Your task to perform on an android device: Set the phone to "Do not disturb". Image 0: 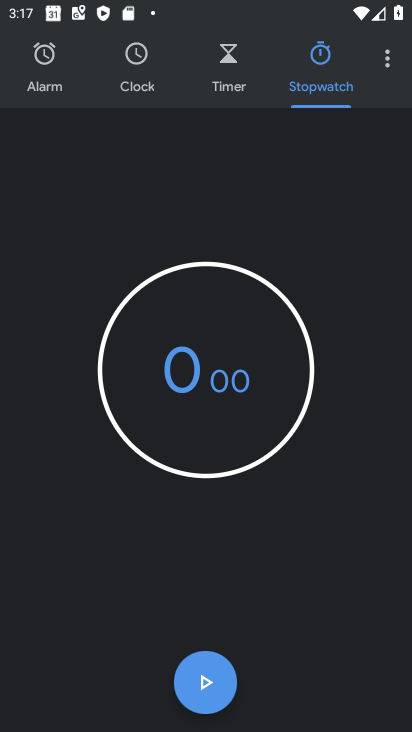
Step 0: press back button
Your task to perform on an android device: Set the phone to "Do not disturb". Image 1: 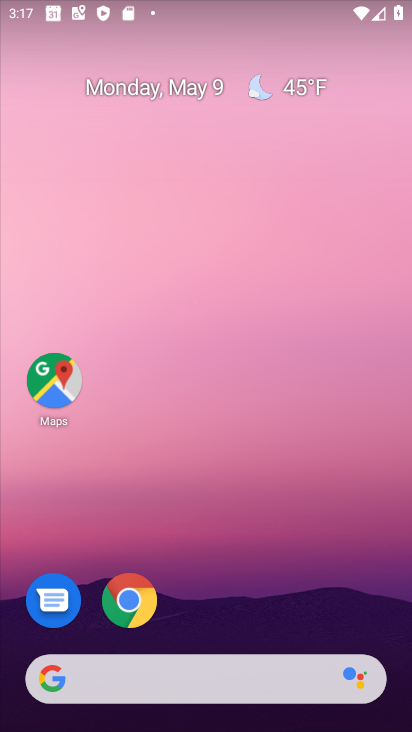
Step 1: drag from (290, 441) to (230, 40)
Your task to perform on an android device: Set the phone to "Do not disturb". Image 2: 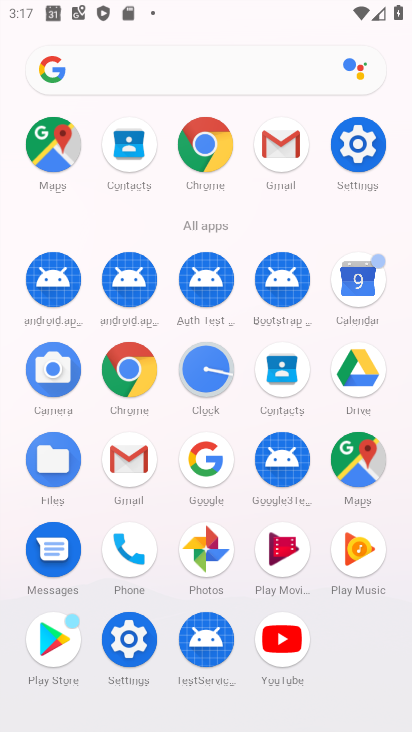
Step 2: click (356, 143)
Your task to perform on an android device: Set the phone to "Do not disturb". Image 3: 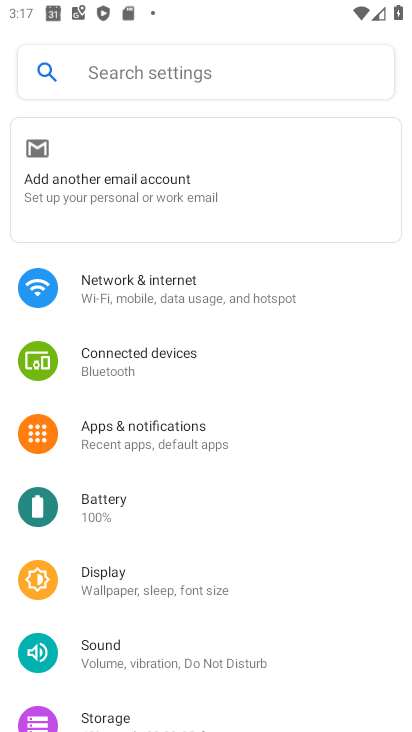
Step 3: drag from (262, 540) to (278, 83)
Your task to perform on an android device: Set the phone to "Do not disturb". Image 4: 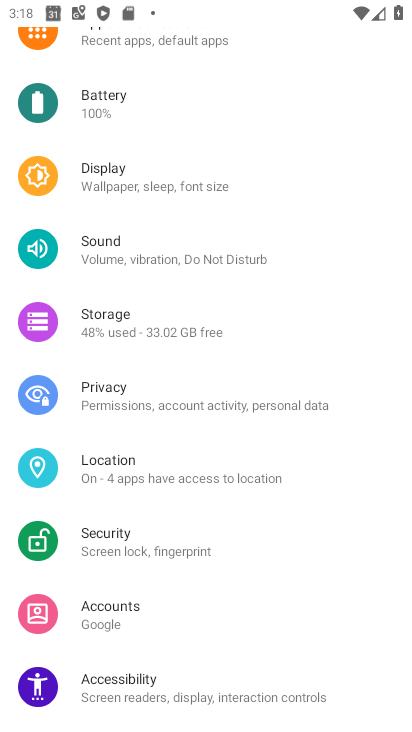
Step 4: drag from (272, 591) to (284, 172)
Your task to perform on an android device: Set the phone to "Do not disturb". Image 5: 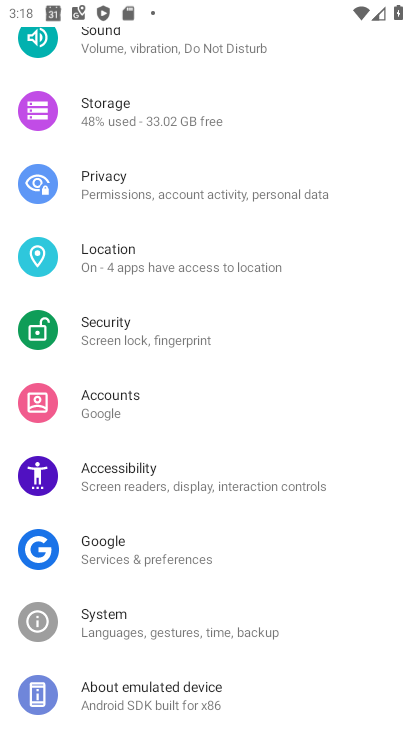
Step 5: drag from (228, 617) to (267, 200)
Your task to perform on an android device: Set the phone to "Do not disturb". Image 6: 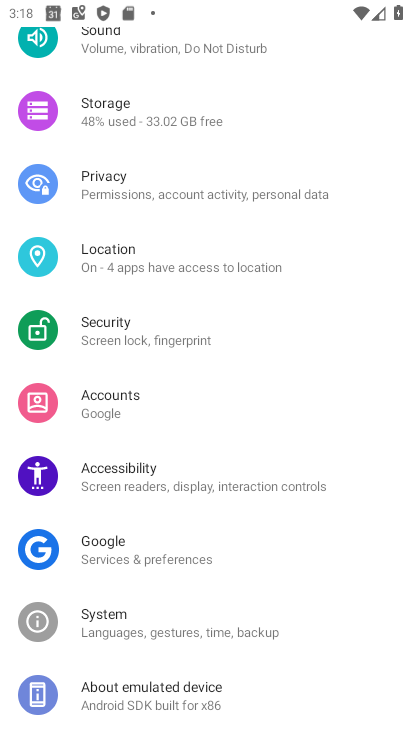
Step 6: drag from (214, 110) to (213, 297)
Your task to perform on an android device: Set the phone to "Do not disturb". Image 7: 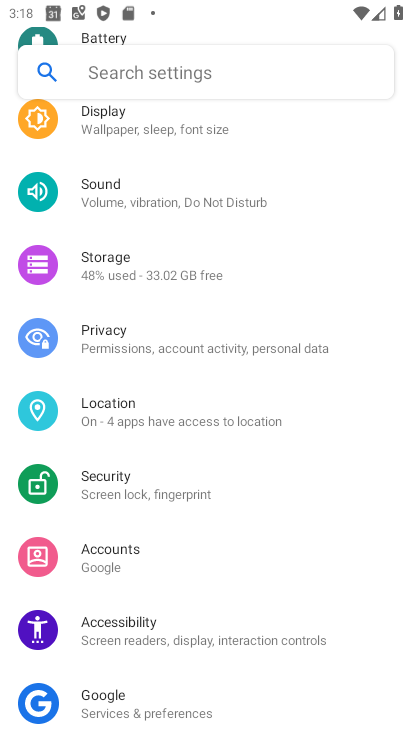
Step 7: click (172, 190)
Your task to perform on an android device: Set the phone to "Do not disturb". Image 8: 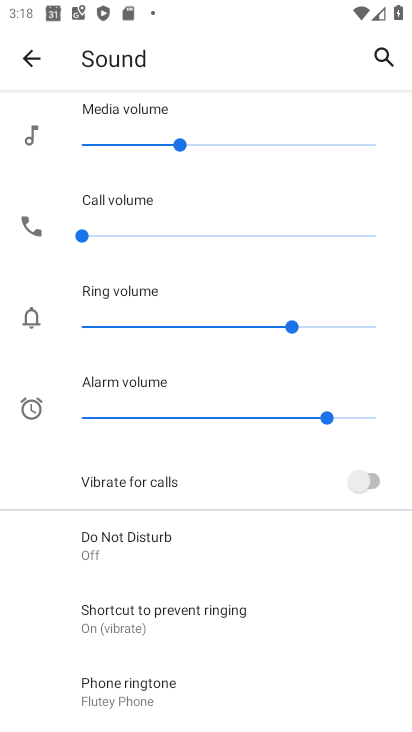
Step 8: click (149, 543)
Your task to perform on an android device: Set the phone to "Do not disturb". Image 9: 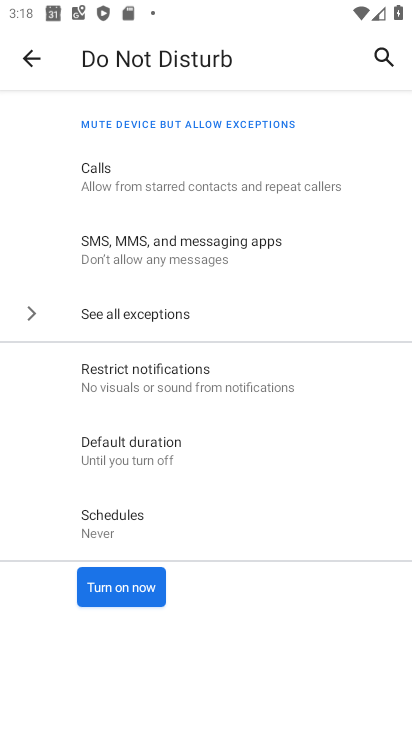
Step 9: click (128, 585)
Your task to perform on an android device: Set the phone to "Do not disturb". Image 10: 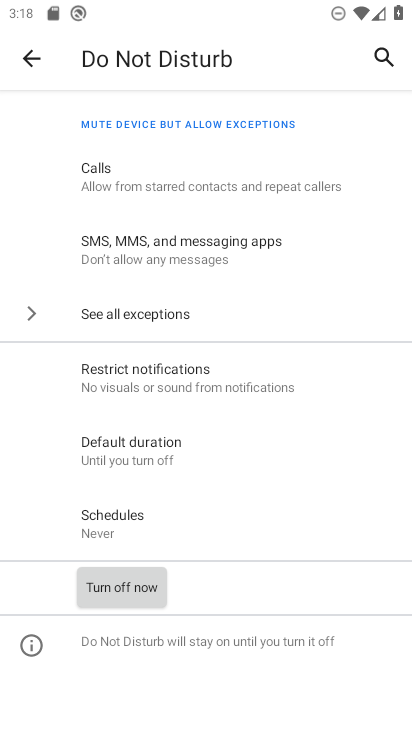
Step 10: task complete